Your task to perform on an android device: Go to Amazon Image 0: 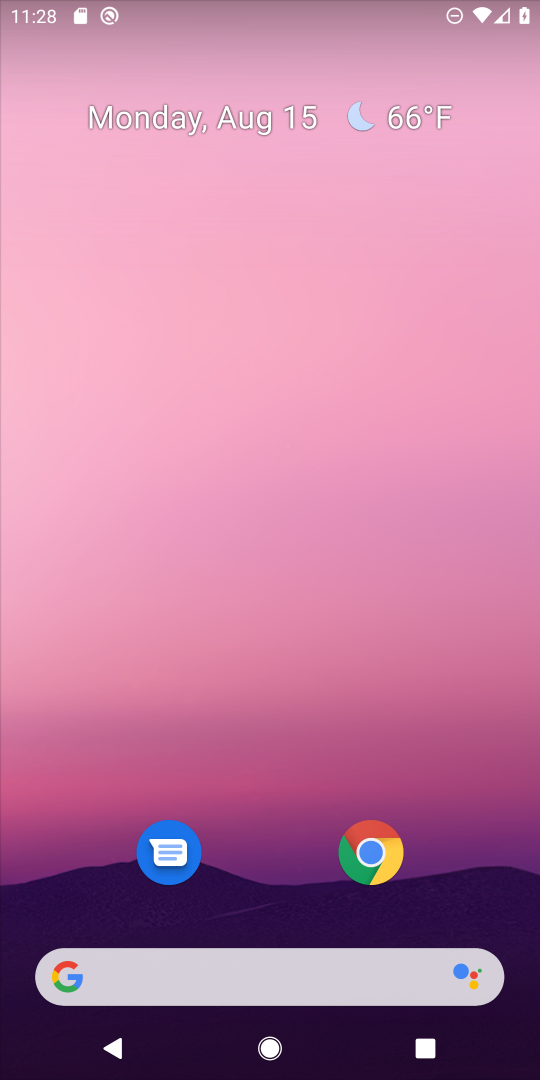
Step 0: click (371, 854)
Your task to perform on an android device: Go to Amazon Image 1: 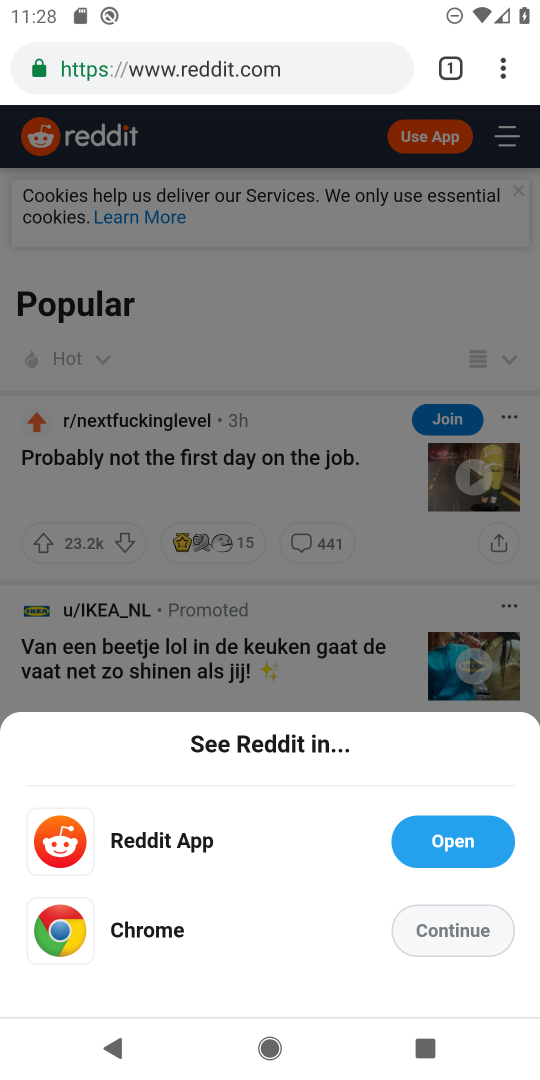
Step 1: click (455, 62)
Your task to perform on an android device: Go to Amazon Image 2: 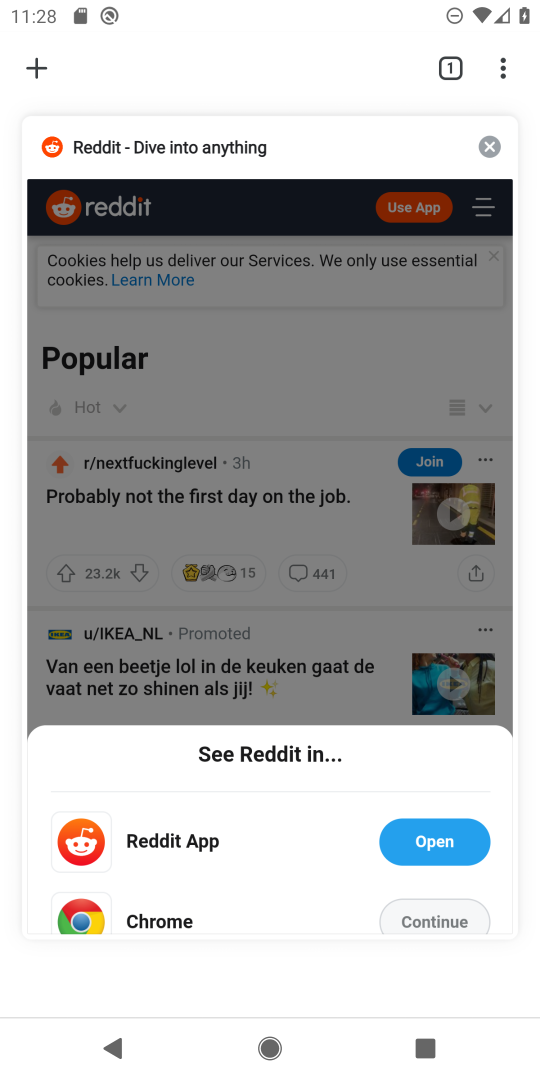
Step 2: click (38, 70)
Your task to perform on an android device: Go to Amazon Image 3: 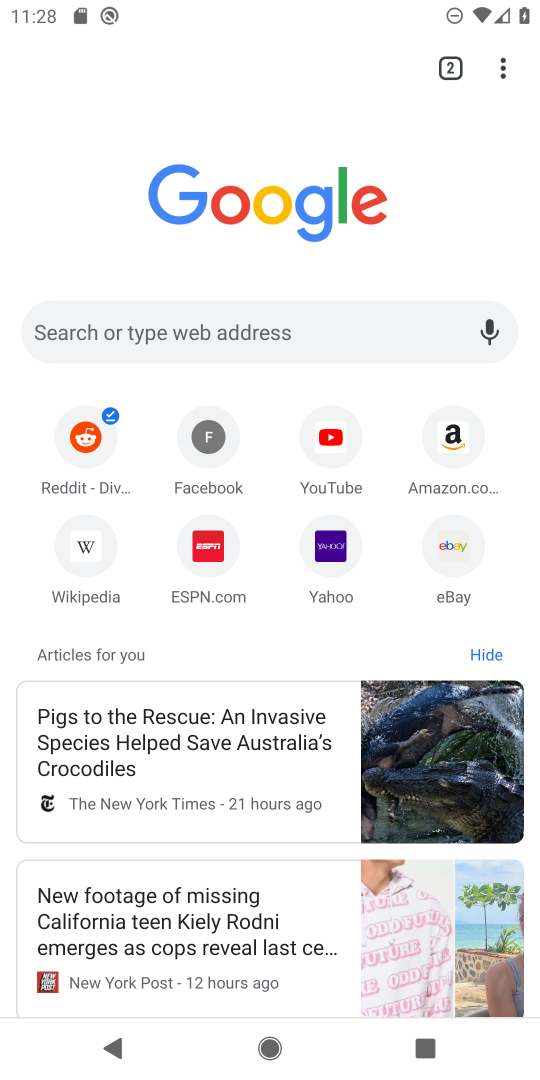
Step 3: click (465, 435)
Your task to perform on an android device: Go to Amazon Image 4: 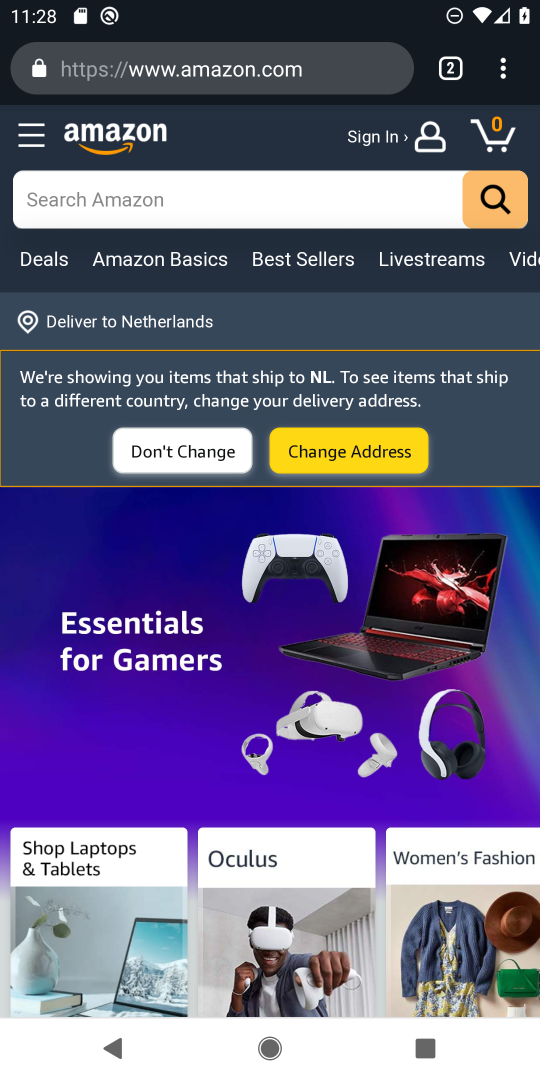
Step 4: task complete